Your task to perform on an android device: turn notification dots on Image 0: 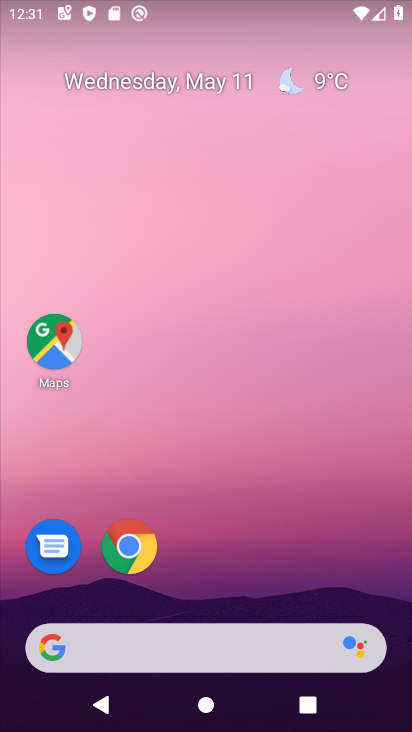
Step 0: drag from (303, 452) to (255, 3)
Your task to perform on an android device: turn notification dots on Image 1: 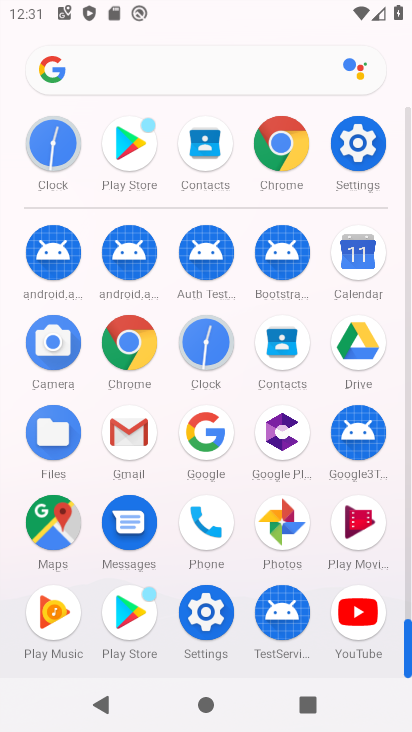
Step 1: click (358, 143)
Your task to perform on an android device: turn notification dots on Image 2: 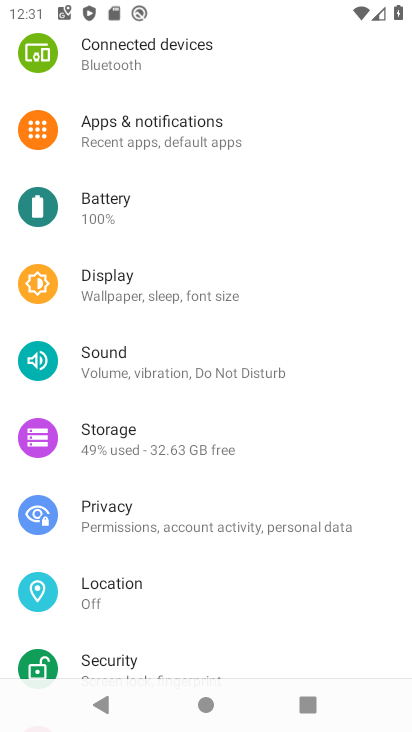
Step 2: click (217, 140)
Your task to perform on an android device: turn notification dots on Image 3: 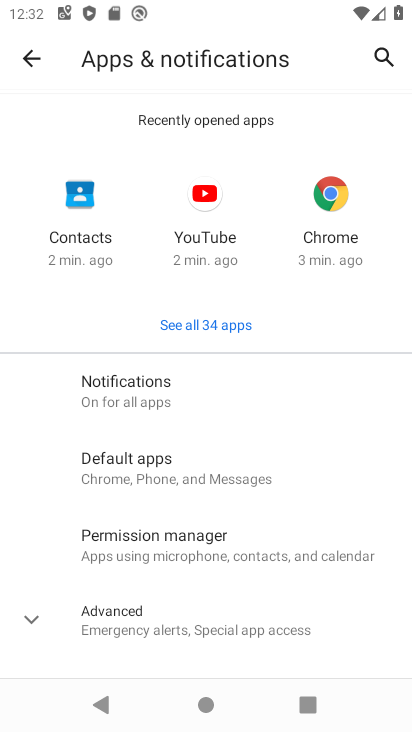
Step 3: click (229, 401)
Your task to perform on an android device: turn notification dots on Image 4: 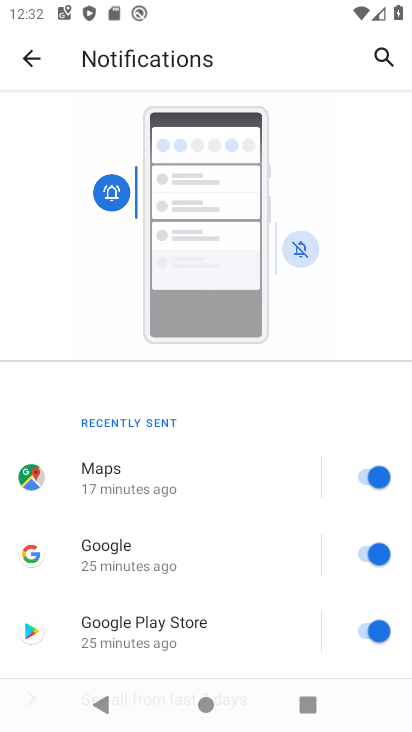
Step 4: drag from (215, 574) to (245, 170)
Your task to perform on an android device: turn notification dots on Image 5: 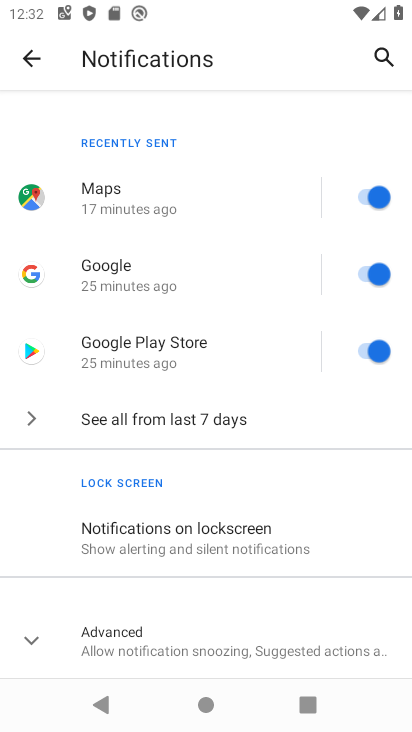
Step 5: click (185, 591)
Your task to perform on an android device: turn notification dots on Image 6: 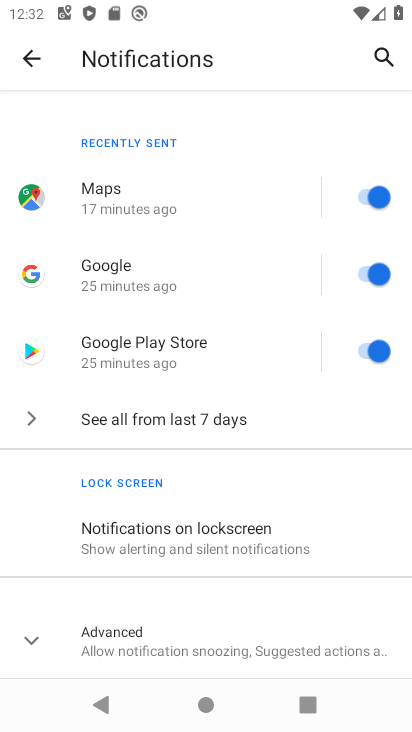
Step 6: drag from (282, 606) to (249, 333)
Your task to perform on an android device: turn notification dots on Image 7: 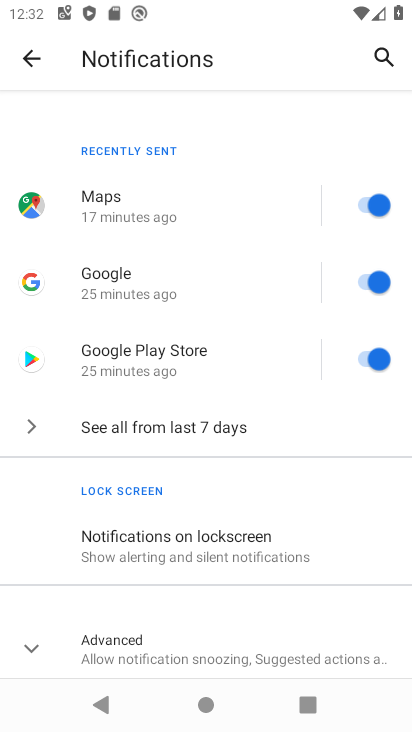
Step 7: click (231, 658)
Your task to perform on an android device: turn notification dots on Image 8: 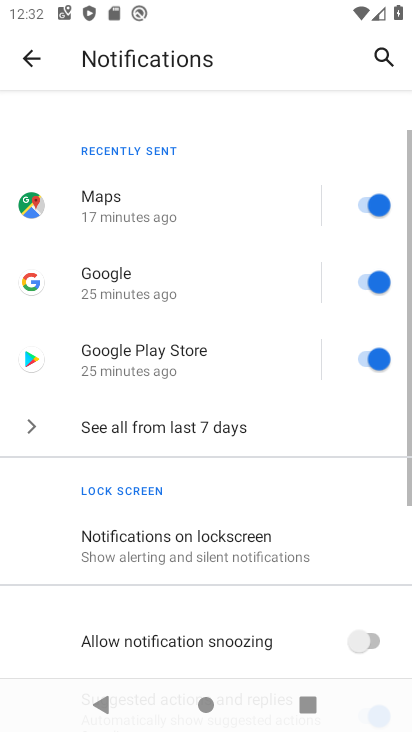
Step 8: task complete